Your task to perform on an android device: Open privacy settings Image 0: 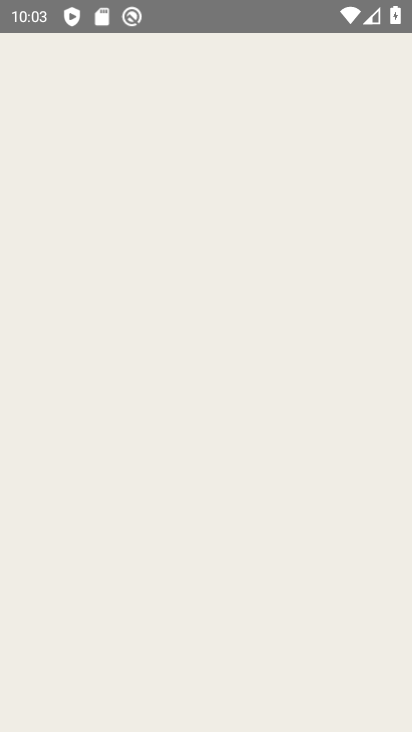
Step 0: press home button
Your task to perform on an android device: Open privacy settings Image 1: 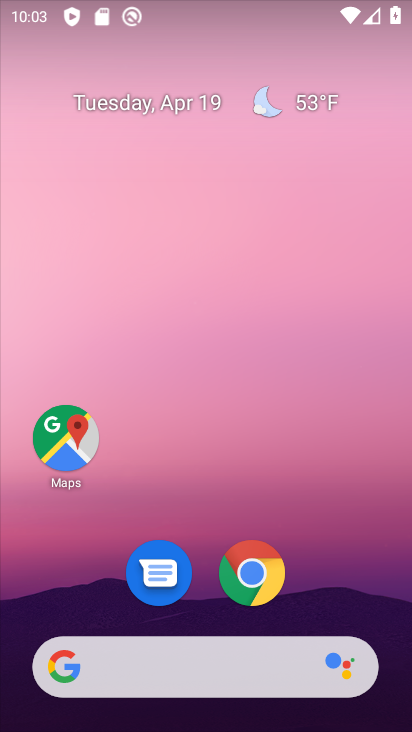
Step 1: drag from (196, 724) to (206, 104)
Your task to perform on an android device: Open privacy settings Image 2: 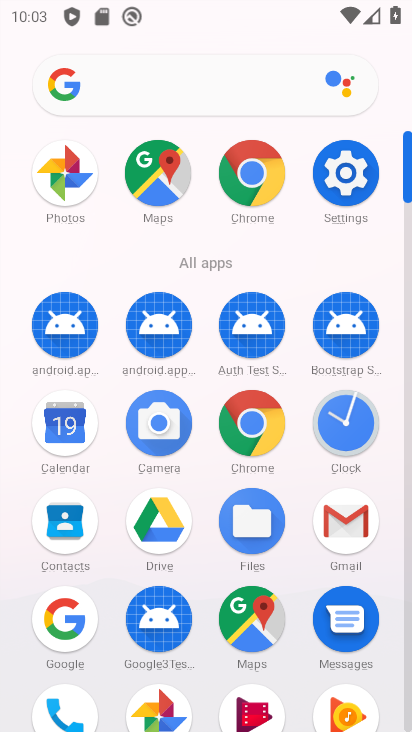
Step 2: click (348, 173)
Your task to perform on an android device: Open privacy settings Image 3: 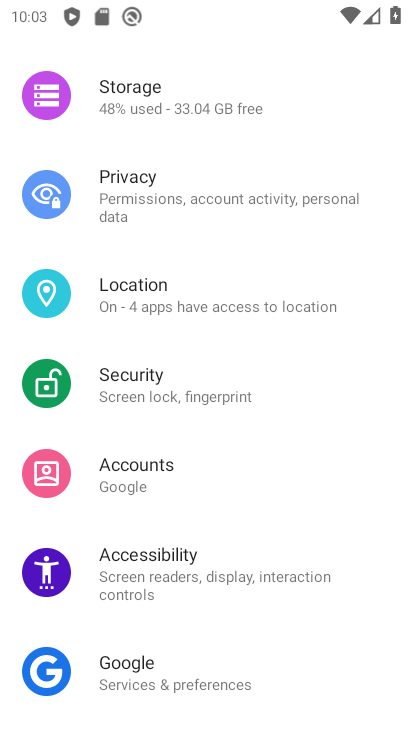
Step 3: click (131, 203)
Your task to perform on an android device: Open privacy settings Image 4: 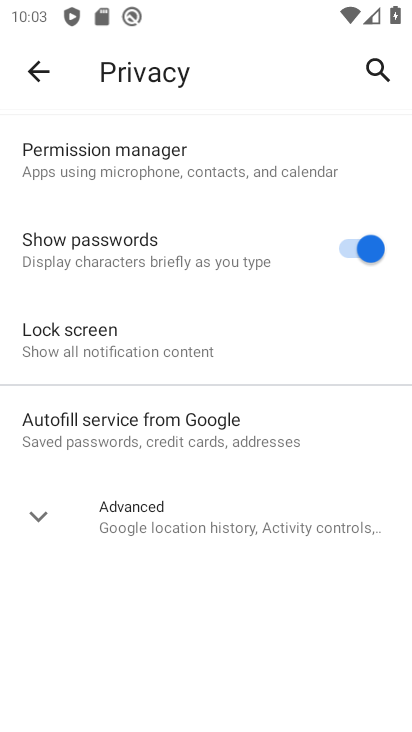
Step 4: task complete